Your task to perform on an android device: Open CNN.com Image 0: 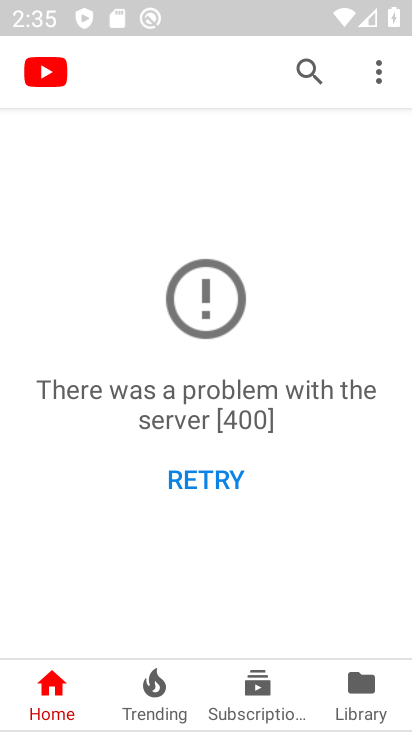
Step 0: press home button
Your task to perform on an android device: Open CNN.com Image 1: 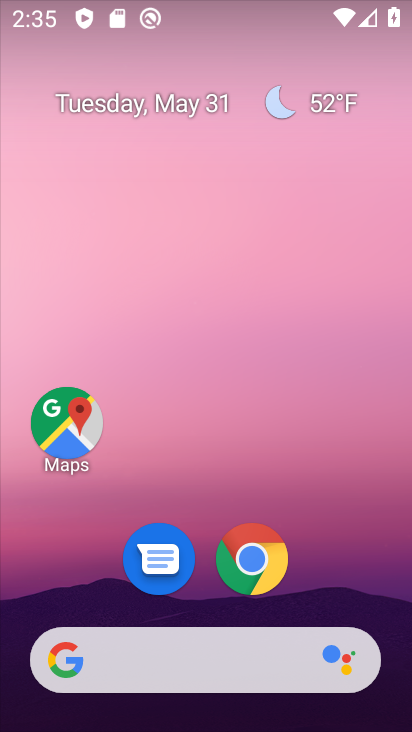
Step 1: click (244, 541)
Your task to perform on an android device: Open CNN.com Image 2: 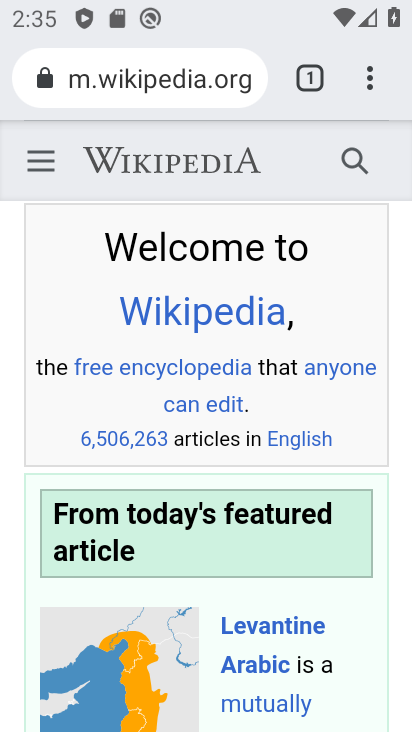
Step 2: click (313, 78)
Your task to perform on an android device: Open CNN.com Image 3: 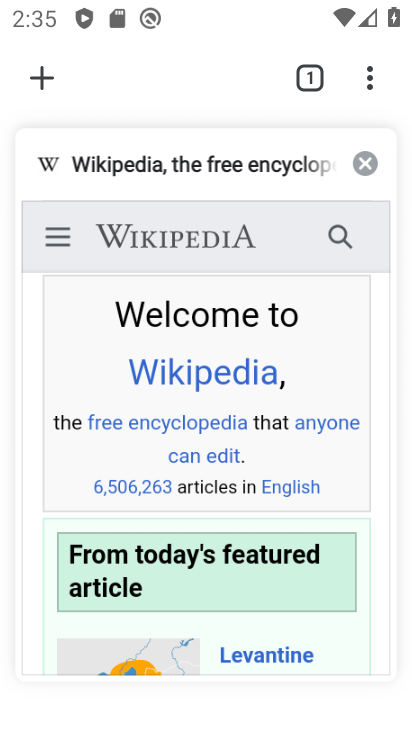
Step 3: click (46, 77)
Your task to perform on an android device: Open CNN.com Image 4: 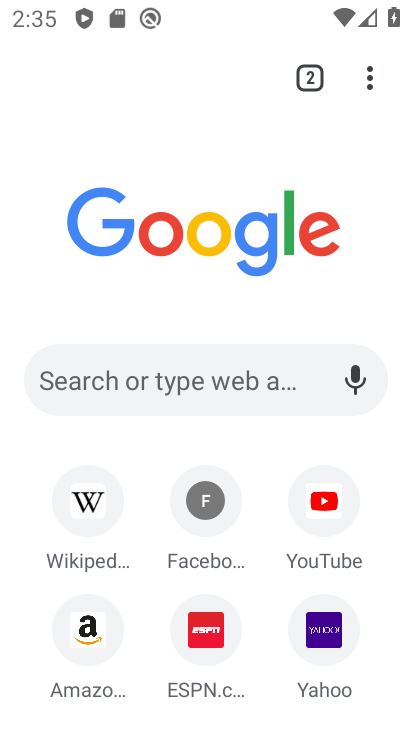
Step 4: click (102, 381)
Your task to perform on an android device: Open CNN.com Image 5: 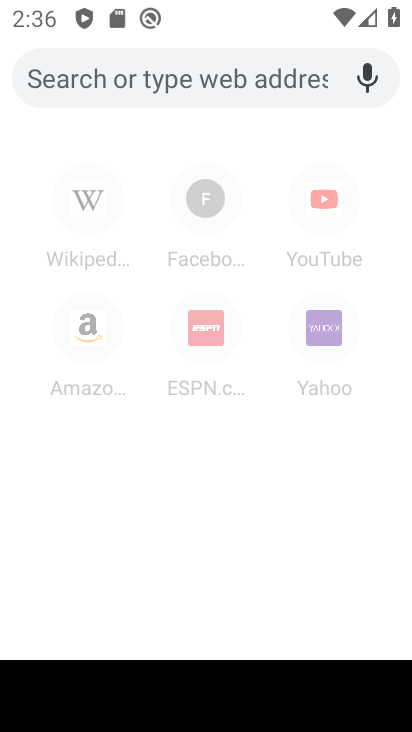
Step 5: type "CNN.com"
Your task to perform on an android device: Open CNN.com Image 6: 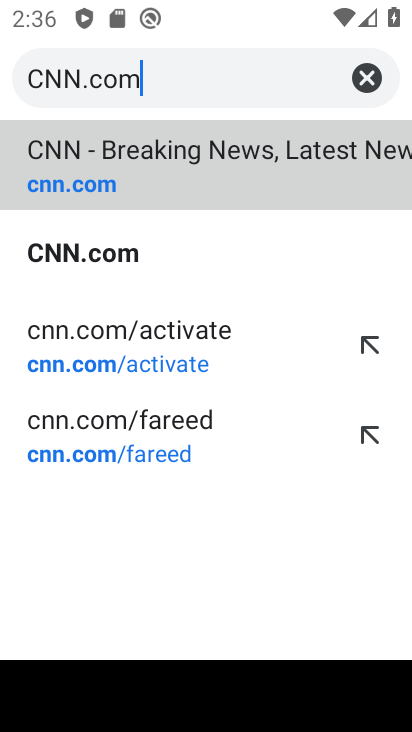
Step 6: click (84, 179)
Your task to perform on an android device: Open CNN.com Image 7: 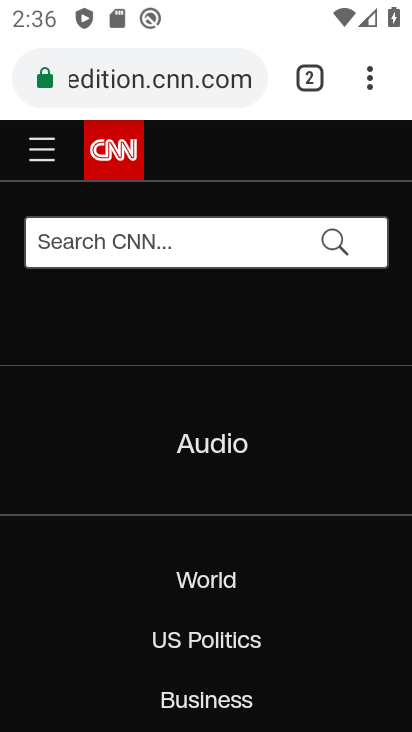
Step 7: task complete